Your task to perform on an android device: Go to battery settings Image 0: 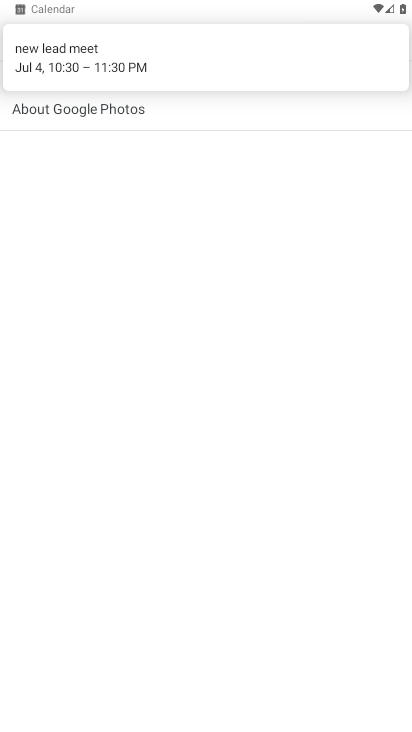
Step 0: press home button
Your task to perform on an android device: Go to battery settings Image 1: 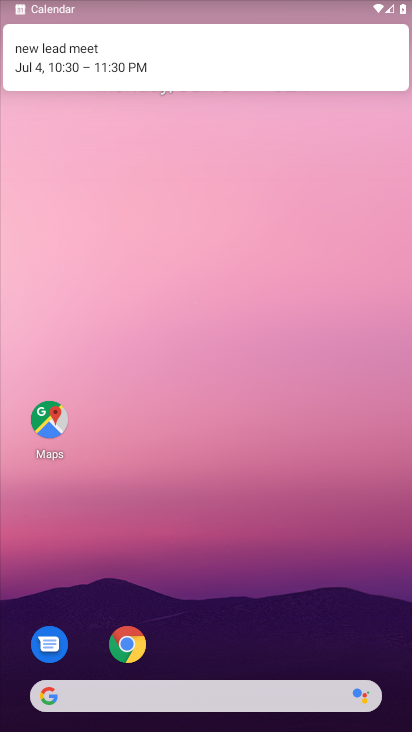
Step 1: drag from (217, 552) to (217, 430)
Your task to perform on an android device: Go to battery settings Image 2: 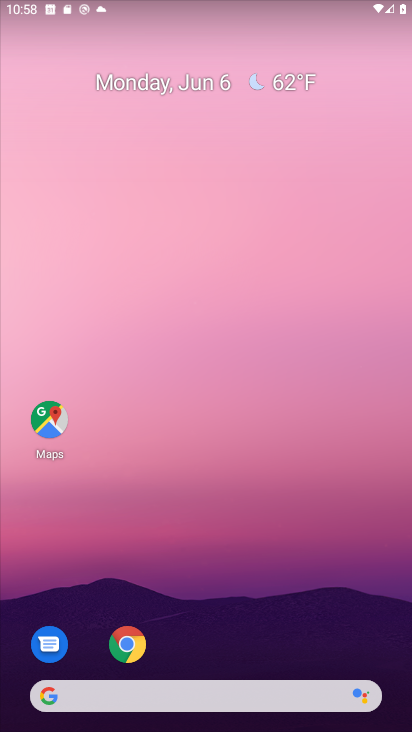
Step 2: drag from (213, 652) to (204, 309)
Your task to perform on an android device: Go to battery settings Image 3: 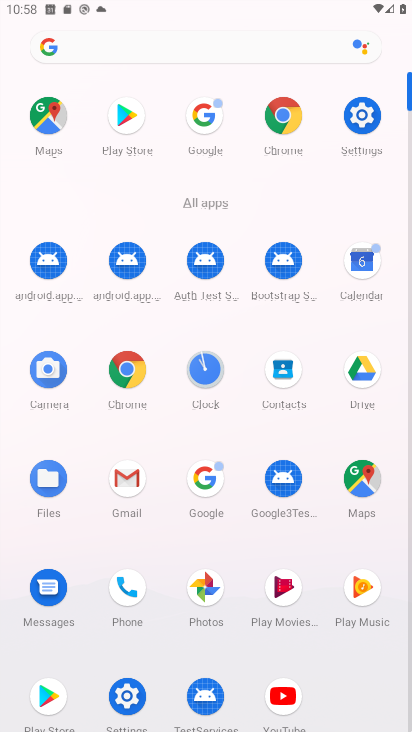
Step 3: click (364, 115)
Your task to perform on an android device: Go to battery settings Image 4: 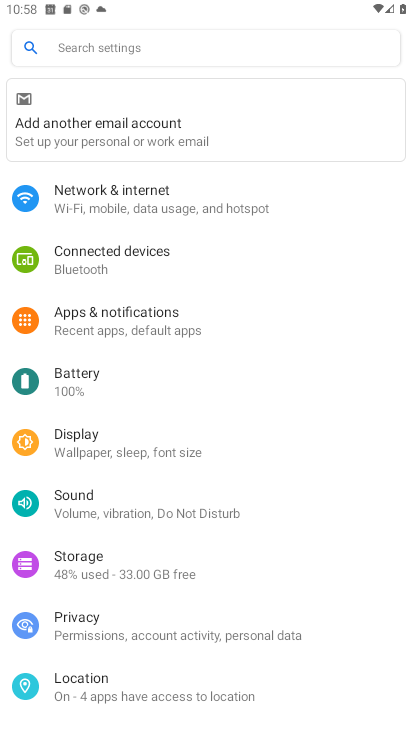
Step 4: click (82, 382)
Your task to perform on an android device: Go to battery settings Image 5: 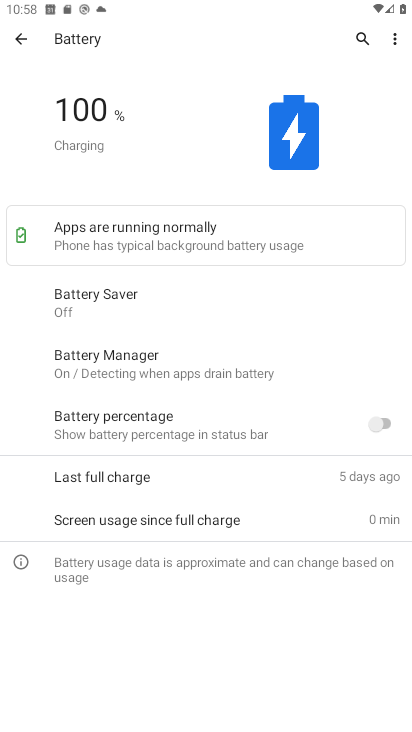
Step 5: task complete